Your task to perform on an android device: set an alarm Image 0: 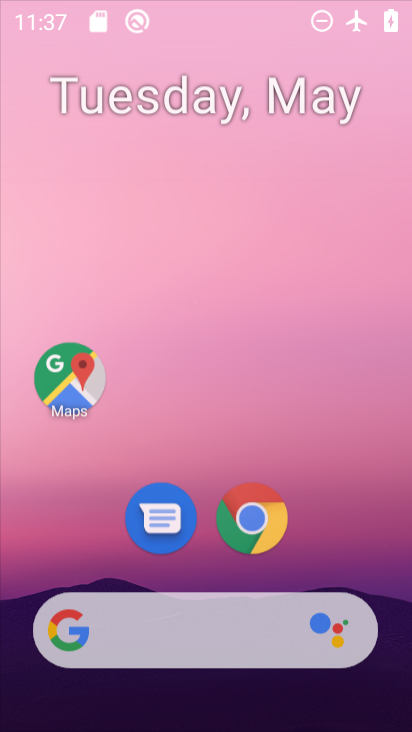
Step 0: drag from (324, 442) to (341, 96)
Your task to perform on an android device: set an alarm Image 1: 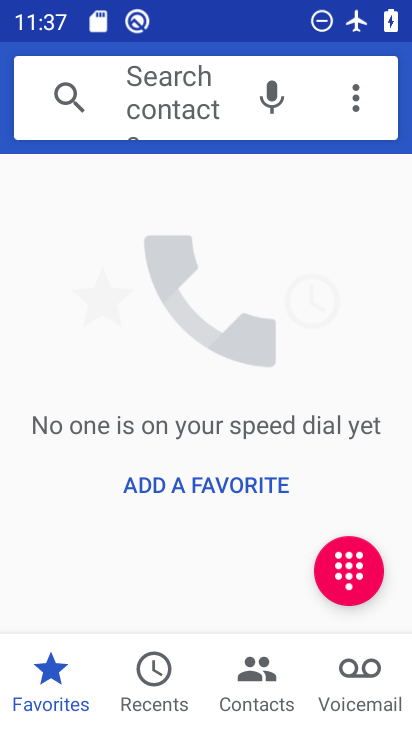
Step 1: press home button
Your task to perform on an android device: set an alarm Image 2: 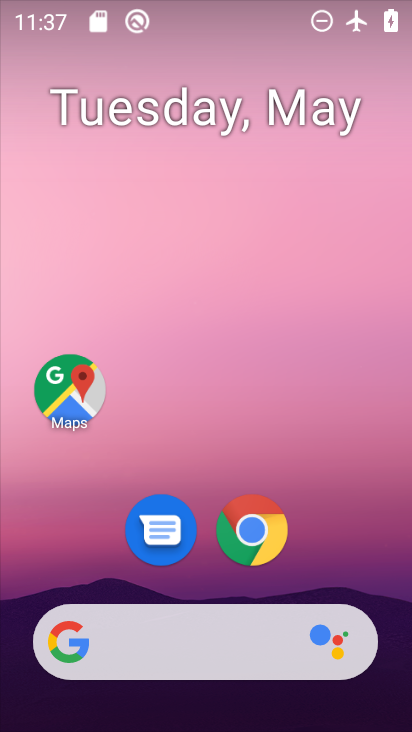
Step 2: drag from (368, 499) to (312, 133)
Your task to perform on an android device: set an alarm Image 3: 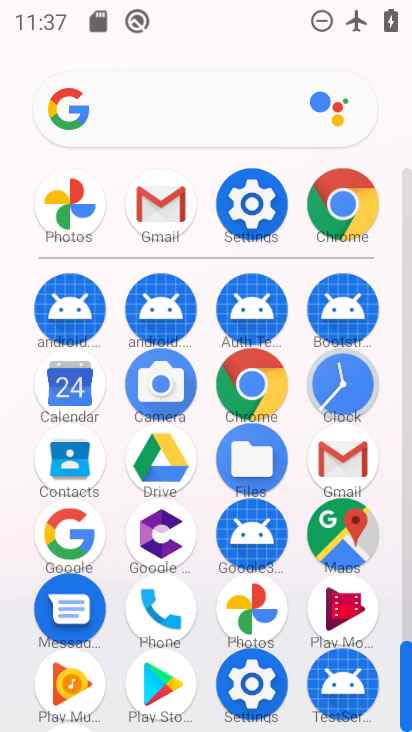
Step 3: click (356, 391)
Your task to perform on an android device: set an alarm Image 4: 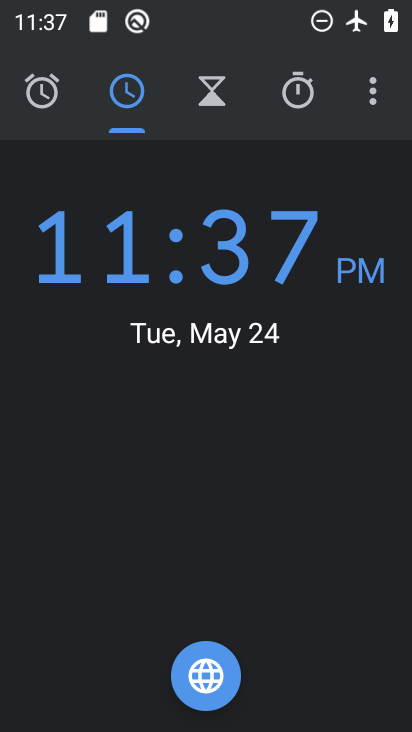
Step 4: click (35, 99)
Your task to perform on an android device: set an alarm Image 5: 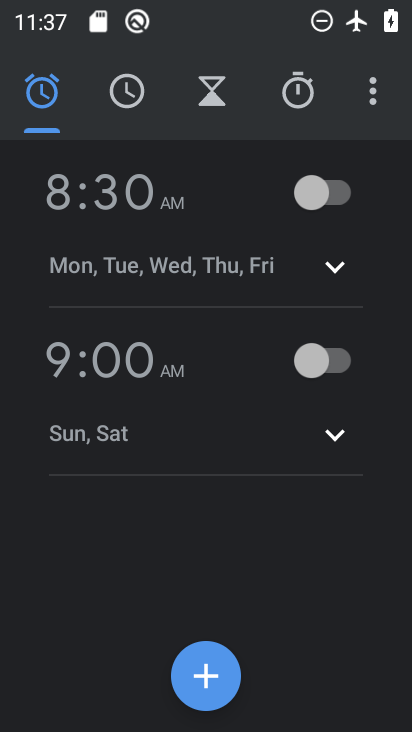
Step 5: click (198, 654)
Your task to perform on an android device: set an alarm Image 6: 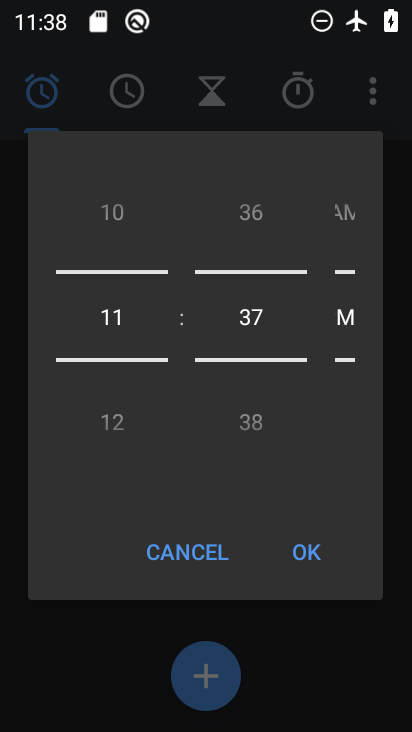
Step 6: click (290, 554)
Your task to perform on an android device: set an alarm Image 7: 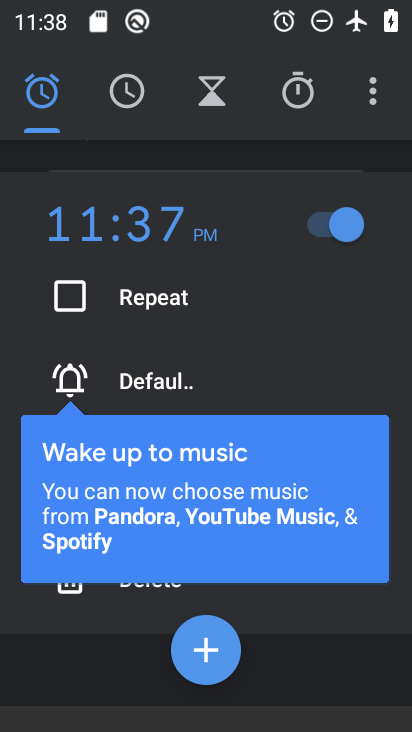
Step 7: task complete